Your task to perform on an android device: open wifi settings Image 0: 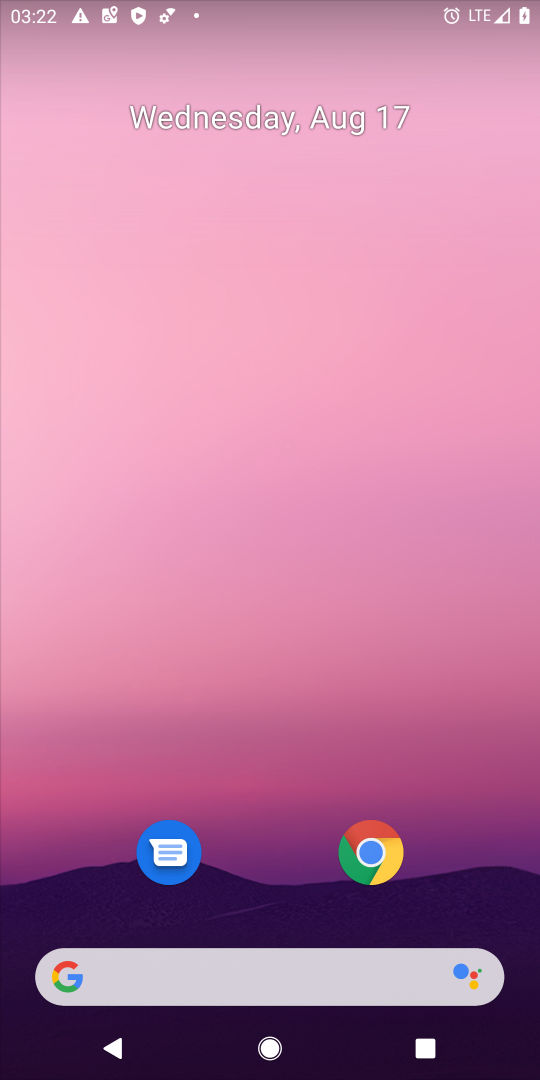
Step 0: drag from (216, 805) to (313, 157)
Your task to perform on an android device: open wifi settings Image 1: 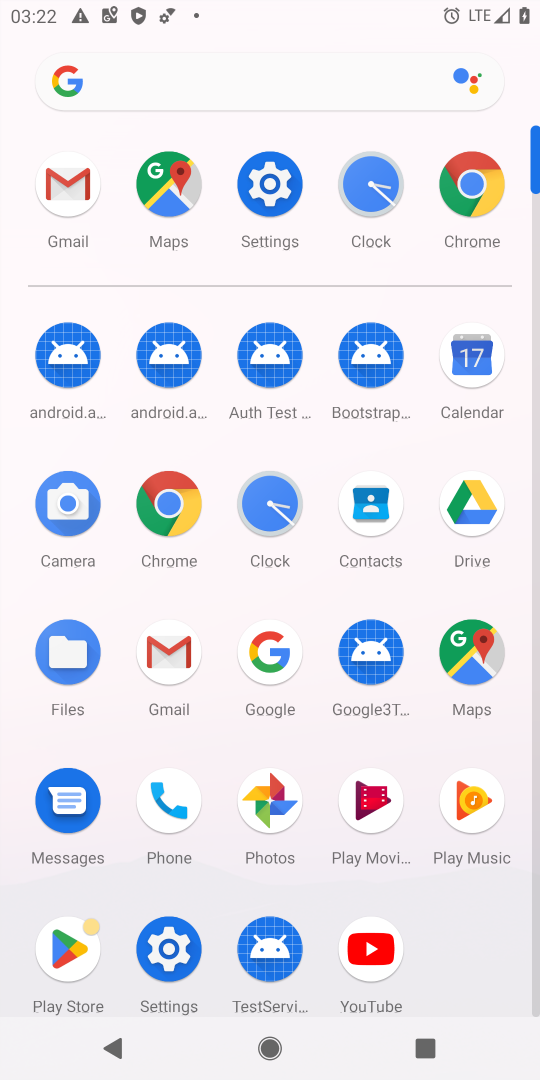
Step 1: click (164, 952)
Your task to perform on an android device: open wifi settings Image 2: 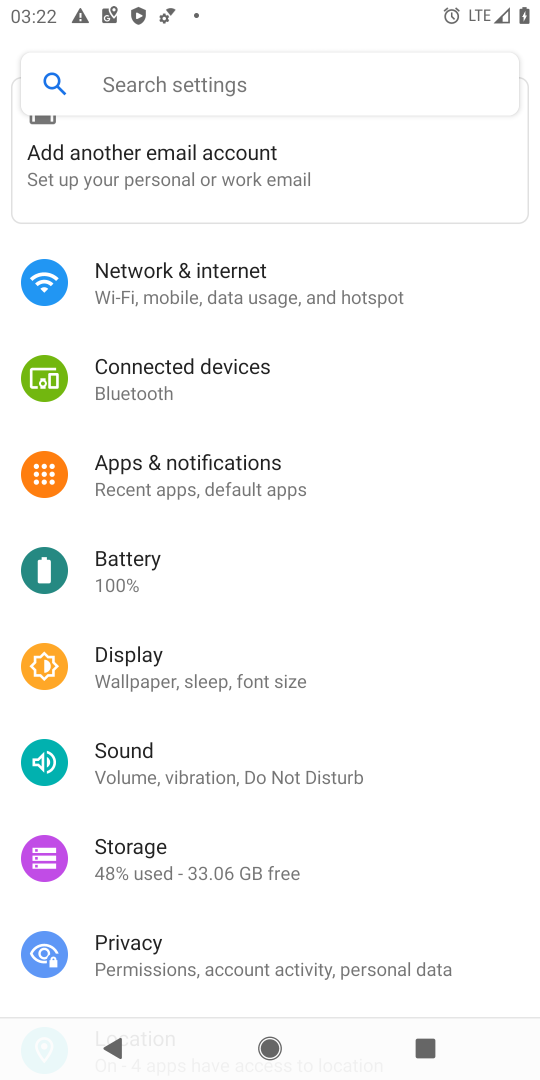
Step 2: click (196, 283)
Your task to perform on an android device: open wifi settings Image 3: 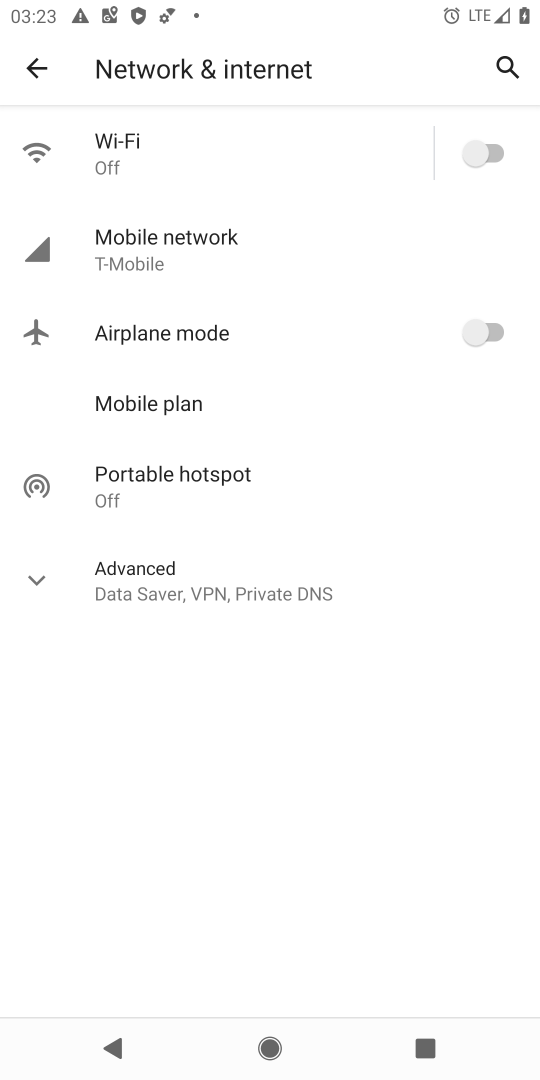
Step 3: click (176, 158)
Your task to perform on an android device: open wifi settings Image 4: 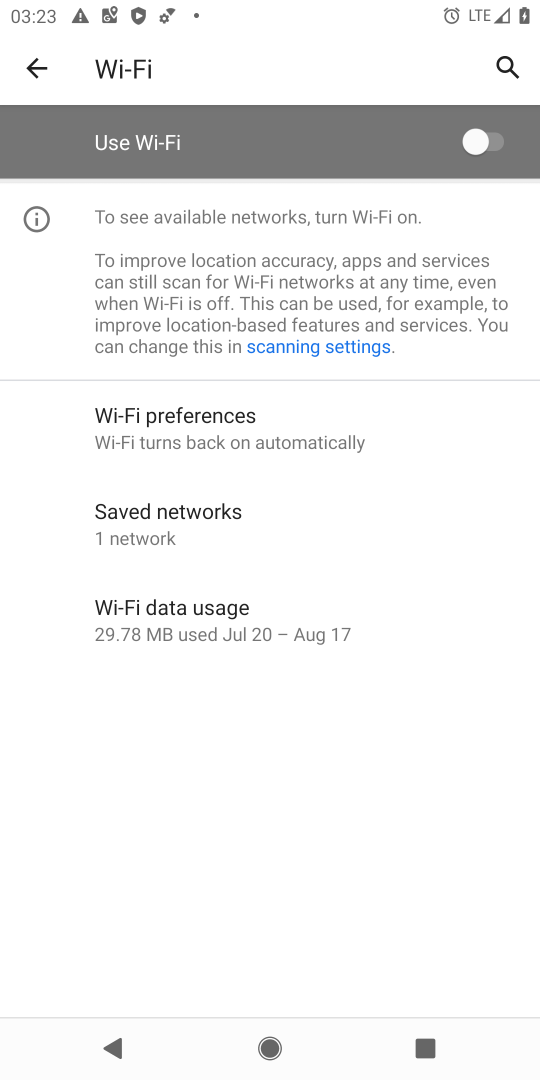
Step 4: click (487, 138)
Your task to perform on an android device: open wifi settings Image 5: 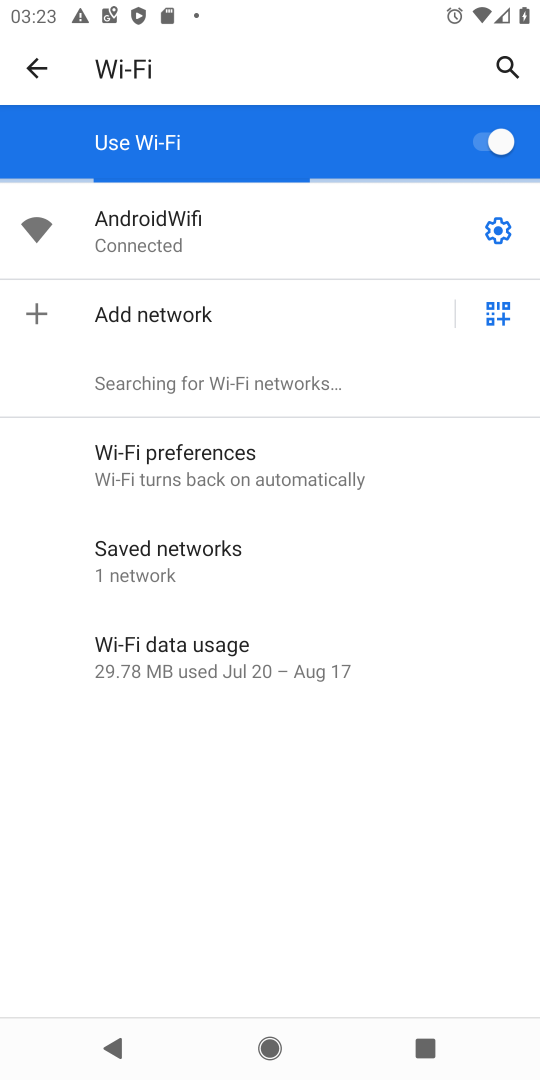
Step 5: click (480, 228)
Your task to perform on an android device: open wifi settings Image 6: 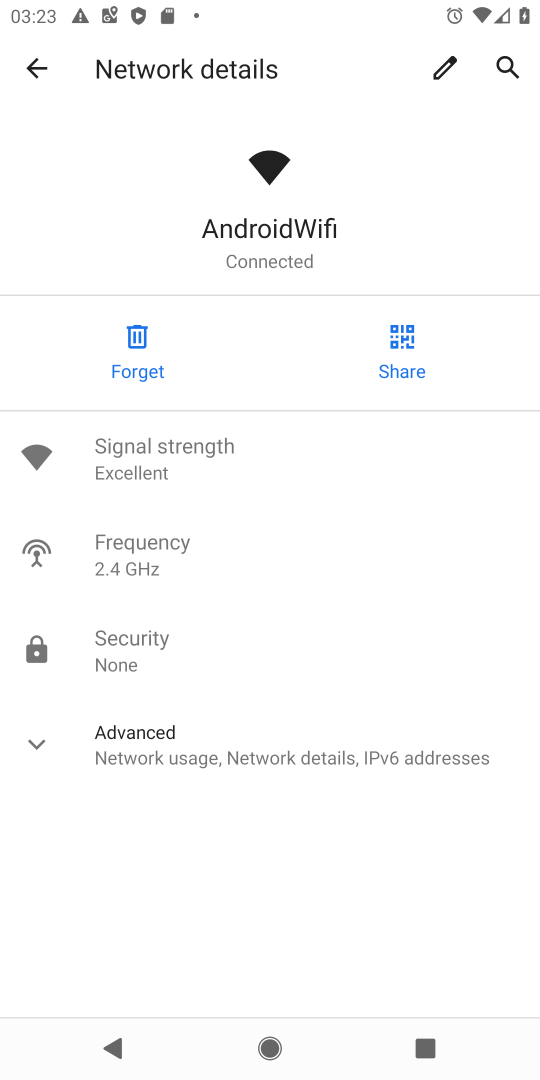
Step 6: task complete